Your task to perform on an android device: Go to Amazon Image 0: 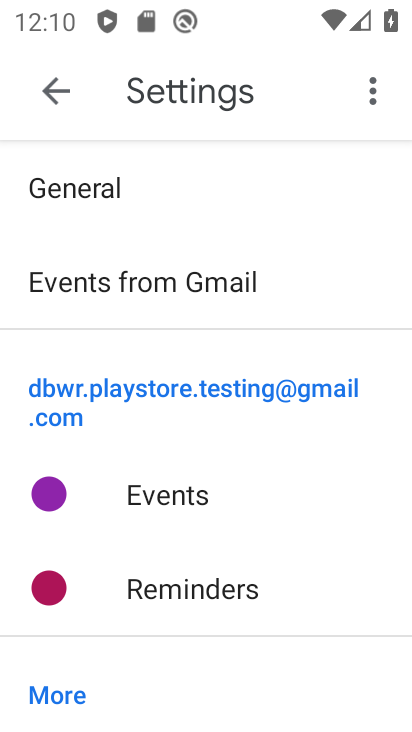
Step 0: press home button
Your task to perform on an android device: Go to Amazon Image 1: 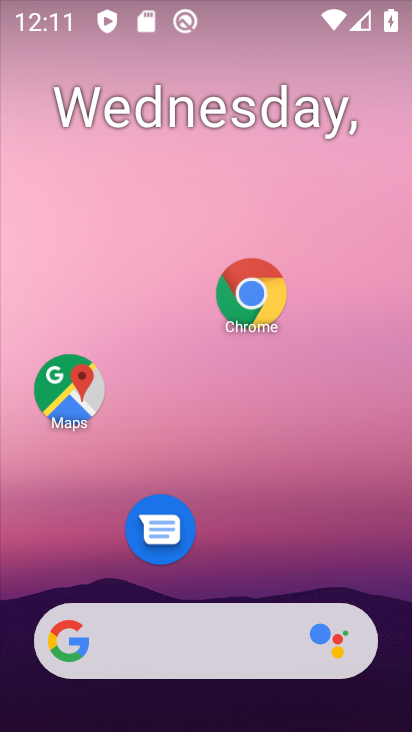
Step 1: drag from (278, 573) to (288, 121)
Your task to perform on an android device: Go to Amazon Image 2: 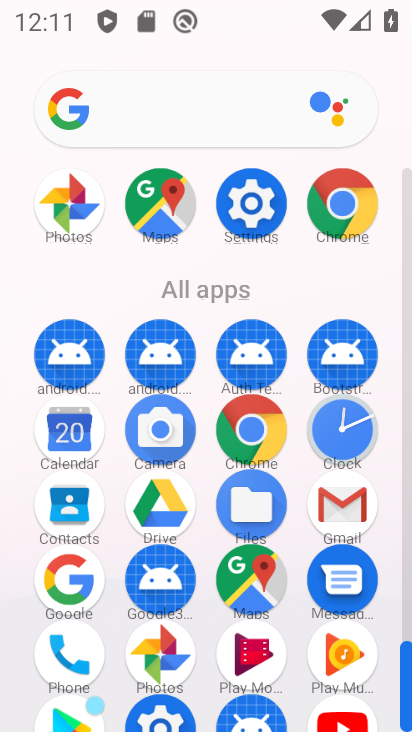
Step 2: click (404, 570)
Your task to perform on an android device: Go to Amazon Image 3: 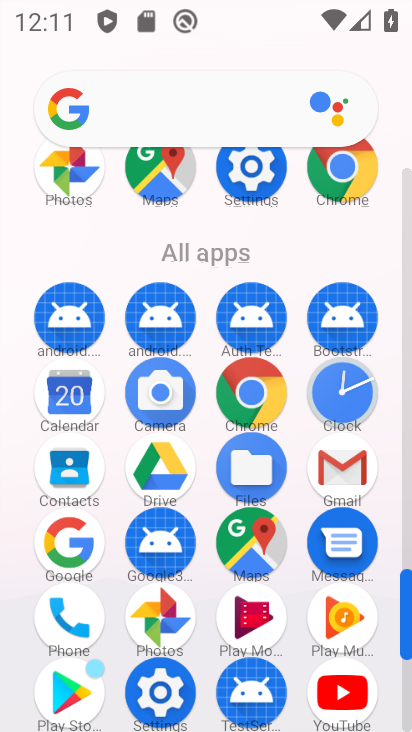
Step 3: click (246, 412)
Your task to perform on an android device: Go to Amazon Image 4: 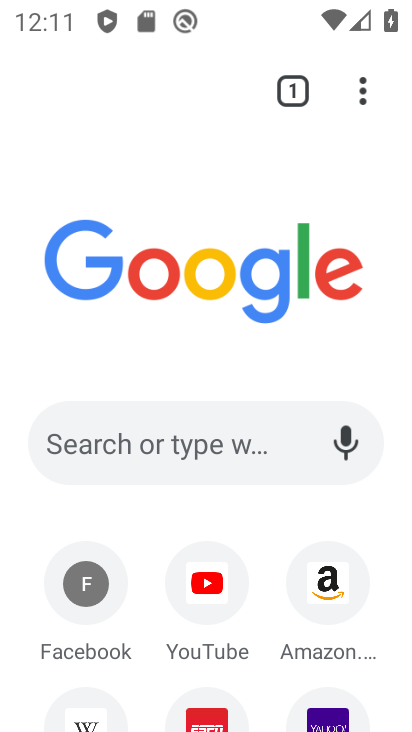
Step 4: click (349, 578)
Your task to perform on an android device: Go to Amazon Image 5: 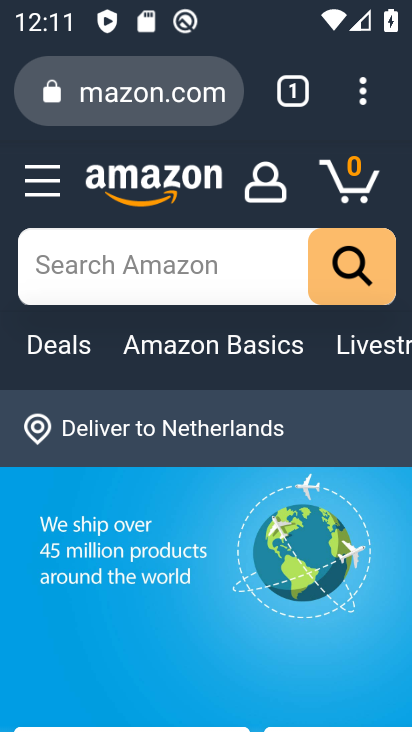
Step 5: task complete